Your task to perform on an android device: Open the calendar app, open the side menu, and click the "Day" option Image 0: 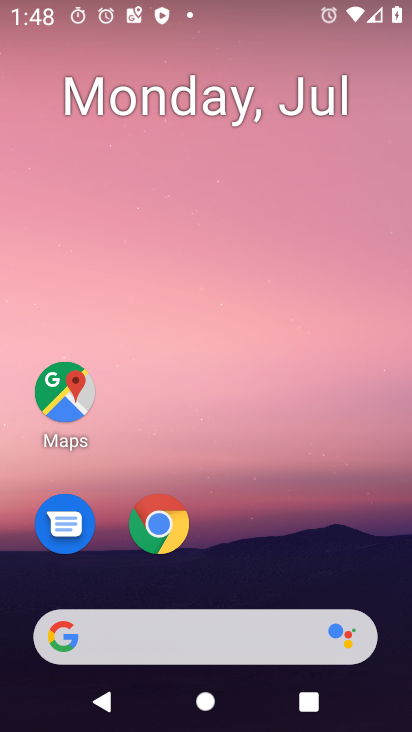
Step 0: press home button
Your task to perform on an android device: Open the calendar app, open the side menu, and click the "Day" option Image 1: 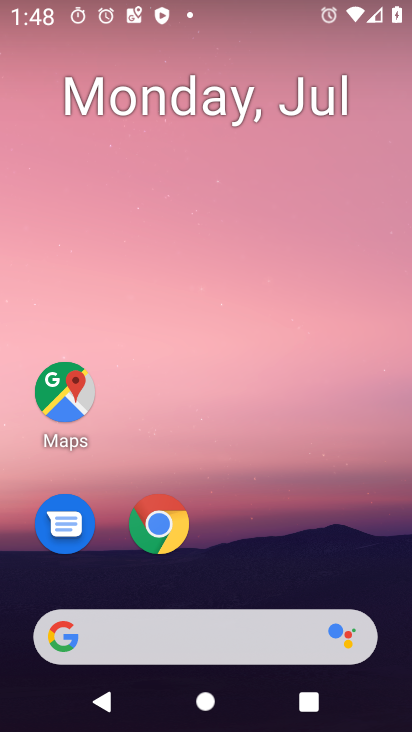
Step 1: drag from (265, 548) to (254, 56)
Your task to perform on an android device: Open the calendar app, open the side menu, and click the "Day" option Image 2: 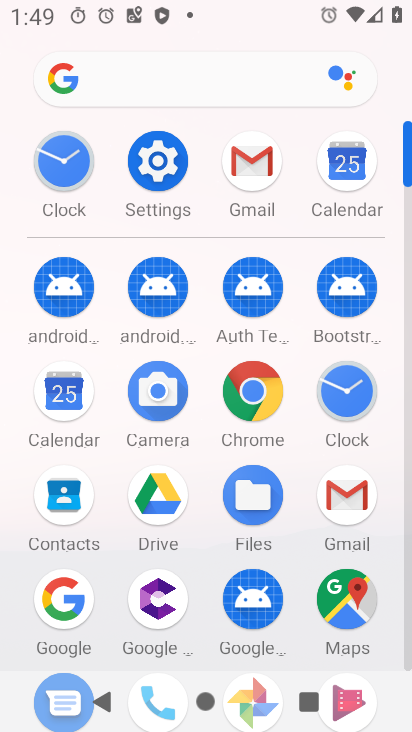
Step 2: click (66, 406)
Your task to perform on an android device: Open the calendar app, open the side menu, and click the "Day" option Image 3: 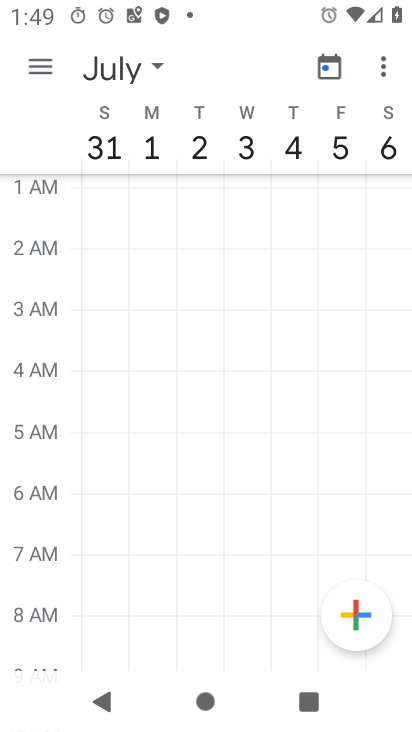
Step 3: click (50, 67)
Your task to perform on an android device: Open the calendar app, open the side menu, and click the "Day" option Image 4: 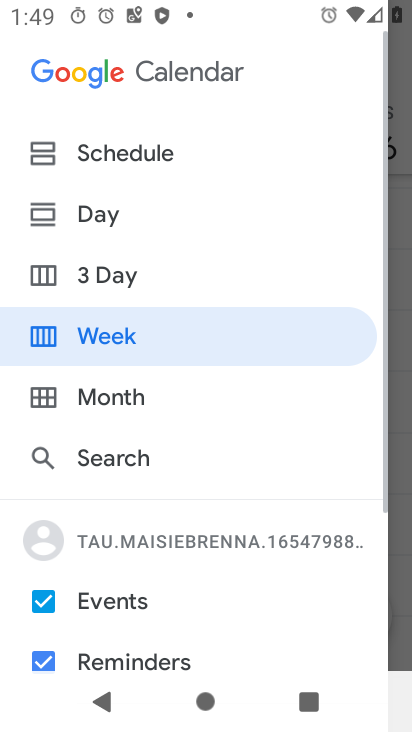
Step 4: click (144, 213)
Your task to perform on an android device: Open the calendar app, open the side menu, and click the "Day" option Image 5: 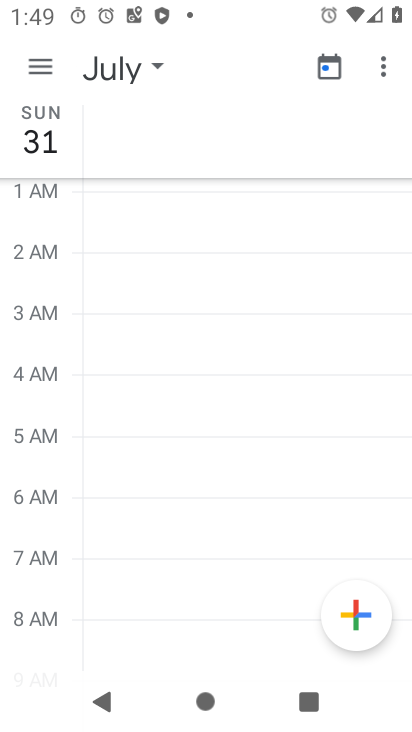
Step 5: task complete